Your task to perform on an android device: turn on javascript in the chrome app Image 0: 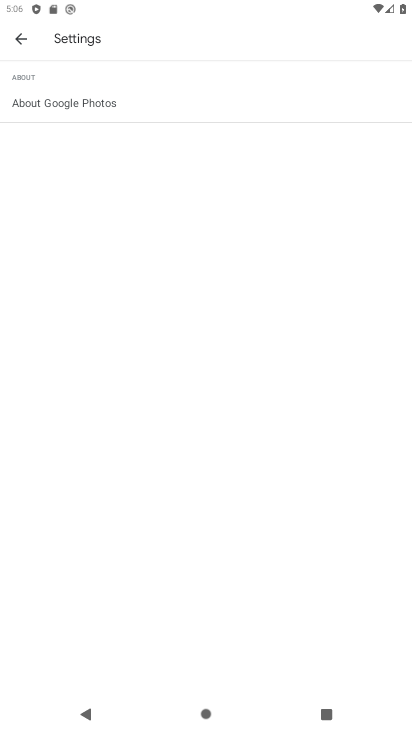
Step 0: press home button
Your task to perform on an android device: turn on javascript in the chrome app Image 1: 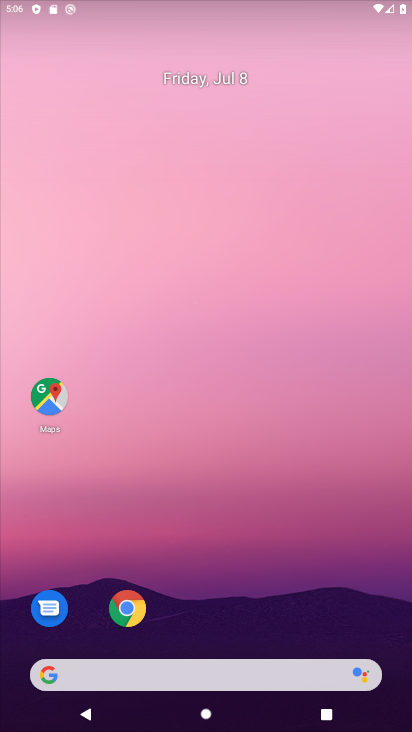
Step 1: drag from (222, 678) to (287, 65)
Your task to perform on an android device: turn on javascript in the chrome app Image 2: 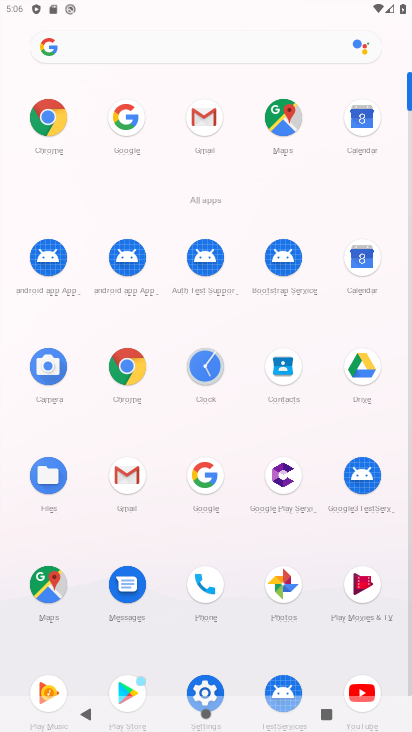
Step 2: click (119, 353)
Your task to perform on an android device: turn on javascript in the chrome app Image 3: 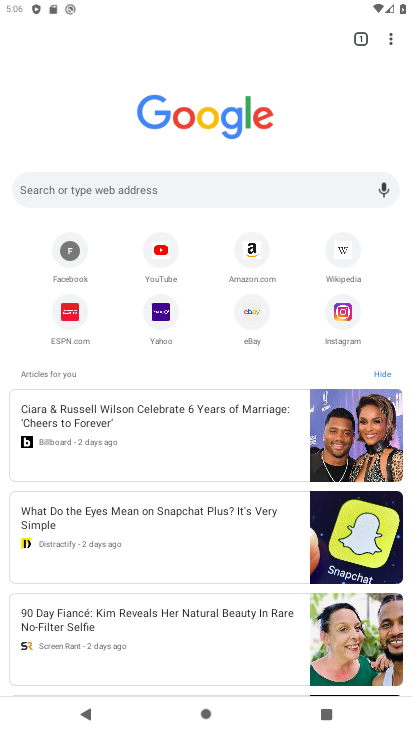
Step 3: drag from (390, 36) to (271, 336)
Your task to perform on an android device: turn on javascript in the chrome app Image 4: 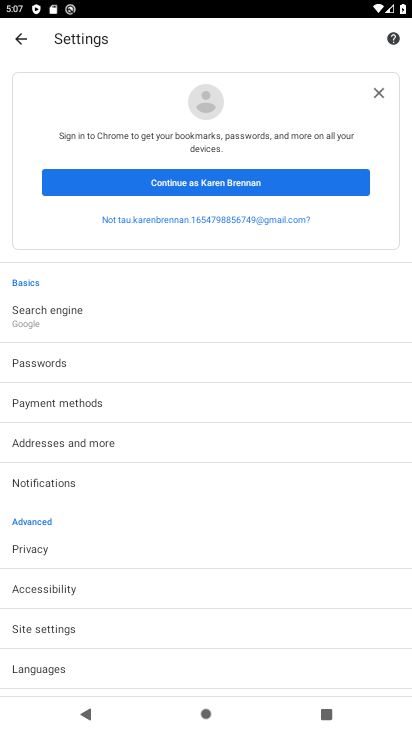
Step 4: click (67, 629)
Your task to perform on an android device: turn on javascript in the chrome app Image 5: 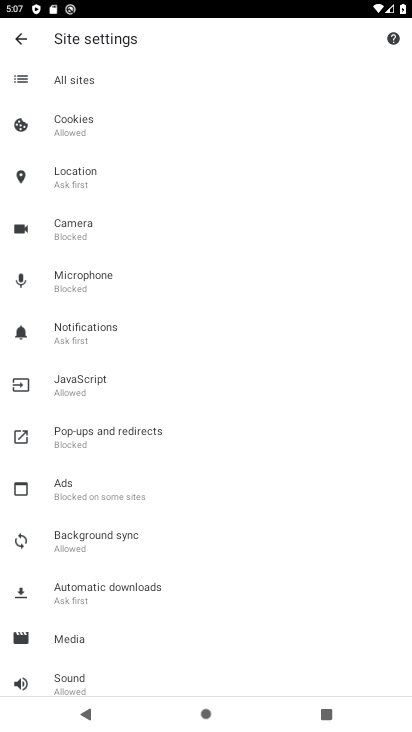
Step 5: click (99, 379)
Your task to perform on an android device: turn on javascript in the chrome app Image 6: 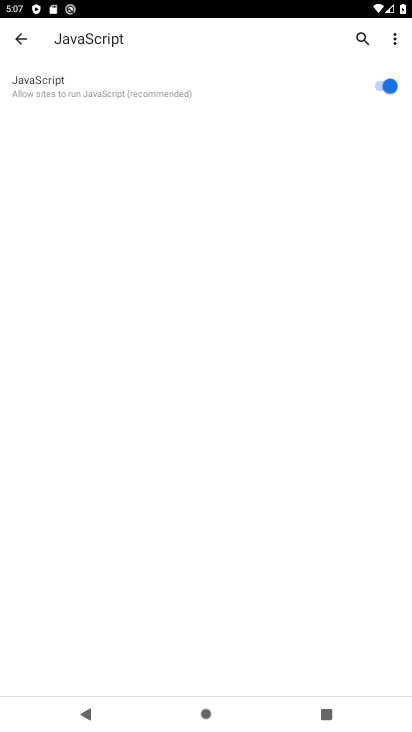
Step 6: task complete